Your task to perform on an android device: Go to location settings Image 0: 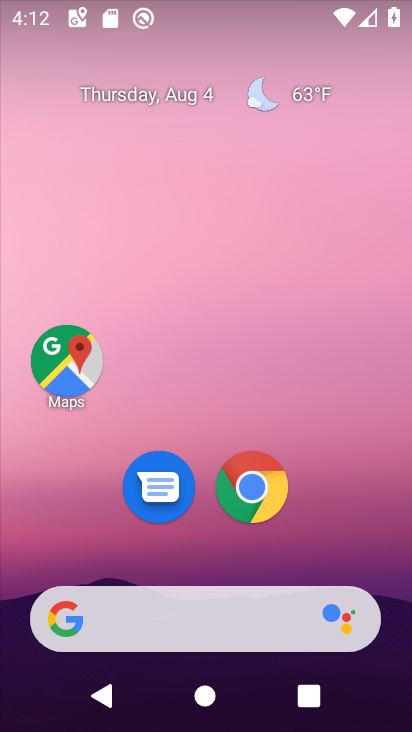
Step 0: click (231, 134)
Your task to perform on an android device: Go to location settings Image 1: 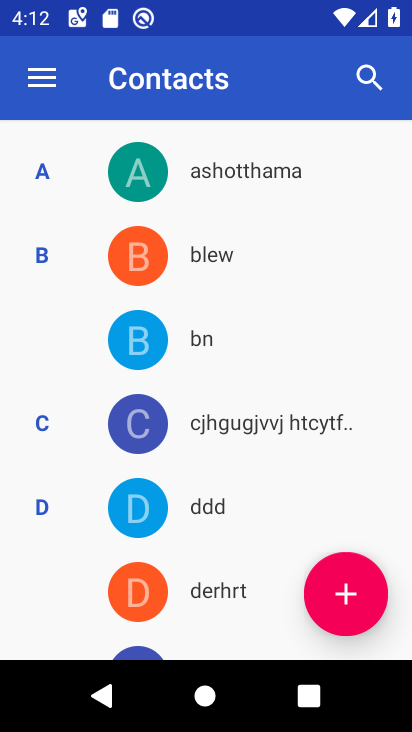
Step 1: press back button
Your task to perform on an android device: Go to location settings Image 2: 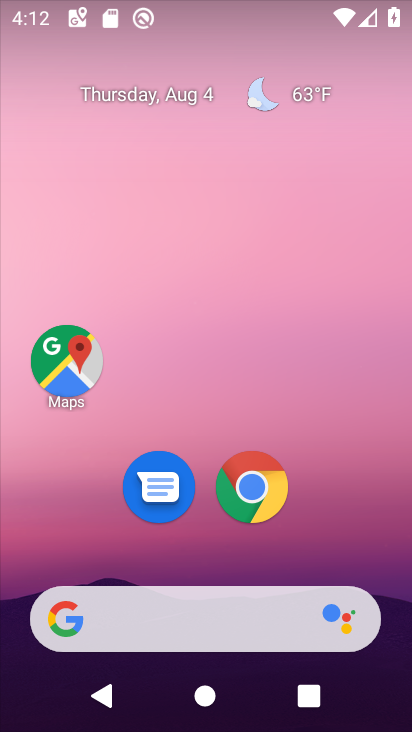
Step 2: drag from (146, 535) to (189, 126)
Your task to perform on an android device: Go to location settings Image 3: 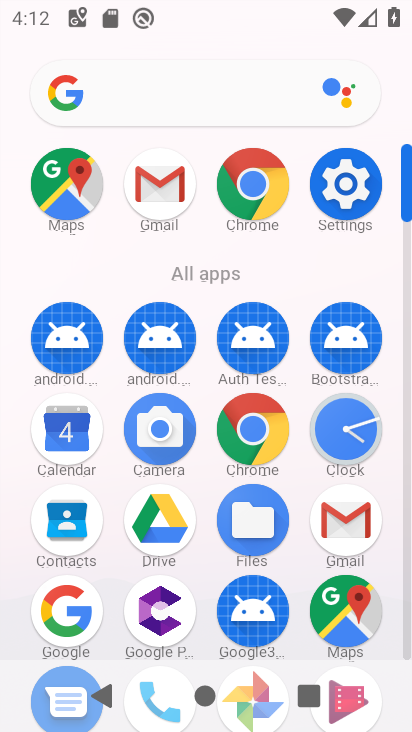
Step 3: click (341, 195)
Your task to perform on an android device: Go to location settings Image 4: 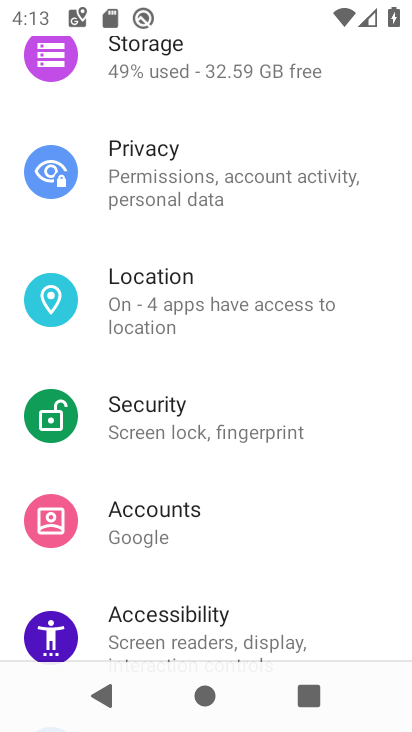
Step 4: click (174, 275)
Your task to perform on an android device: Go to location settings Image 5: 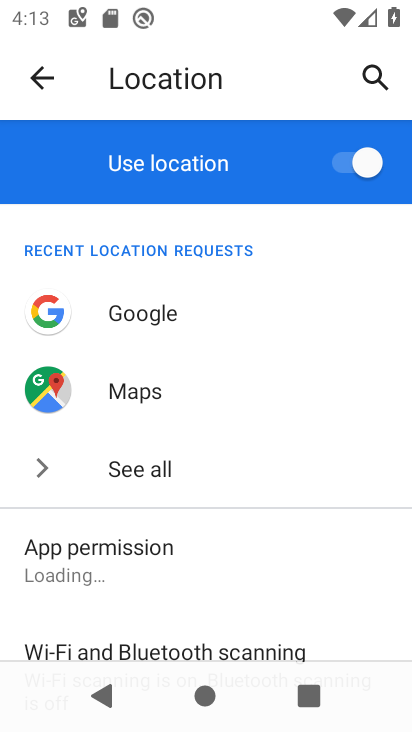
Step 5: task complete